Your task to perform on an android device: What's the price of the new iPhone on eBay? Image 0: 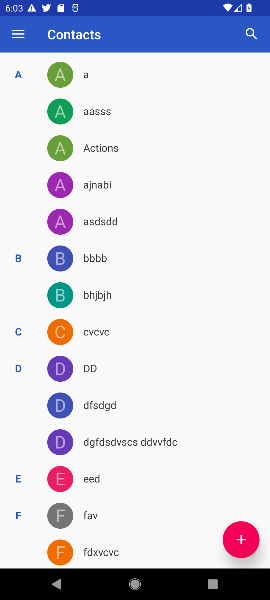
Step 0: press home button
Your task to perform on an android device: What's the price of the new iPhone on eBay? Image 1: 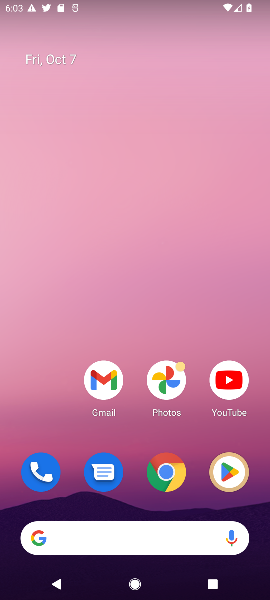
Step 1: click (166, 479)
Your task to perform on an android device: What's the price of the new iPhone on eBay? Image 2: 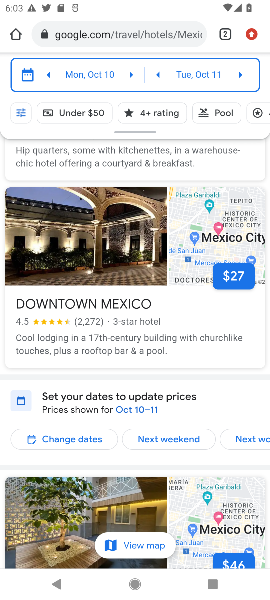
Step 2: click (103, 30)
Your task to perform on an android device: What's the price of the new iPhone on eBay? Image 3: 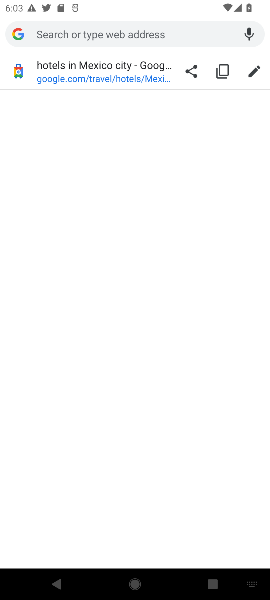
Step 3: type "rice of the new iPhone on eBay"
Your task to perform on an android device: What's the price of the new iPhone on eBay? Image 4: 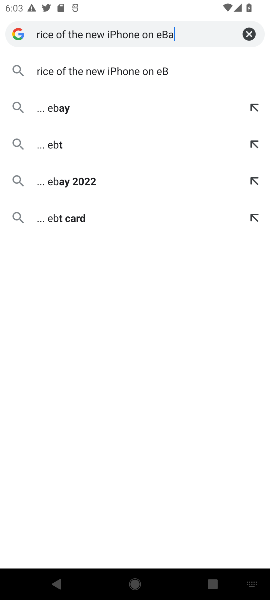
Step 4: type ""
Your task to perform on an android device: What's the price of the new iPhone on eBay? Image 5: 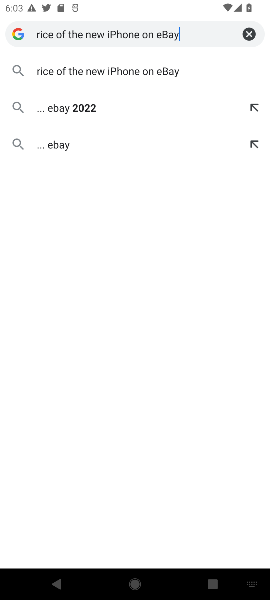
Step 5: click (157, 68)
Your task to perform on an android device: What's the price of the new iPhone on eBay? Image 6: 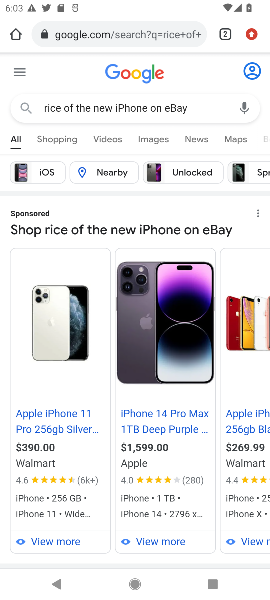
Step 6: drag from (151, 515) to (155, 320)
Your task to perform on an android device: What's the price of the new iPhone on eBay? Image 7: 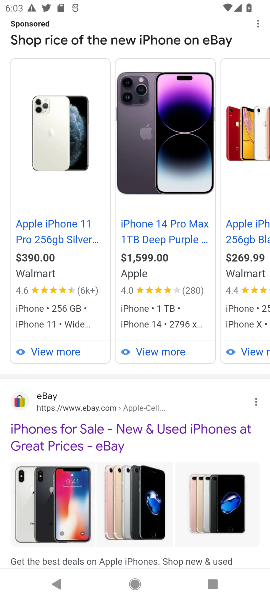
Step 7: drag from (156, 447) to (143, 209)
Your task to perform on an android device: What's the price of the new iPhone on eBay? Image 8: 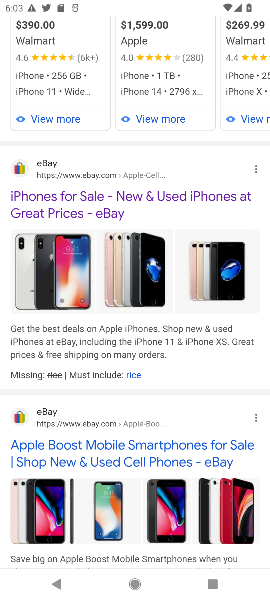
Step 8: drag from (187, 411) to (169, 287)
Your task to perform on an android device: What's the price of the new iPhone on eBay? Image 9: 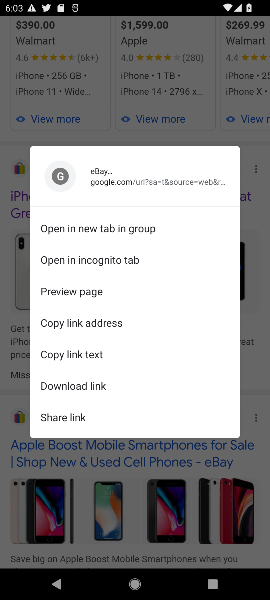
Step 9: click (260, 230)
Your task to perform on an android device: What's the price of the new iPhone on eBay? Image 10: 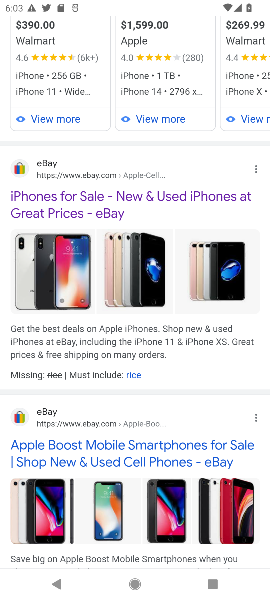
Step 10: click (107, 199)
Your task to perform on an android device: What's the price of the new iPhone on eBay? Image 11: 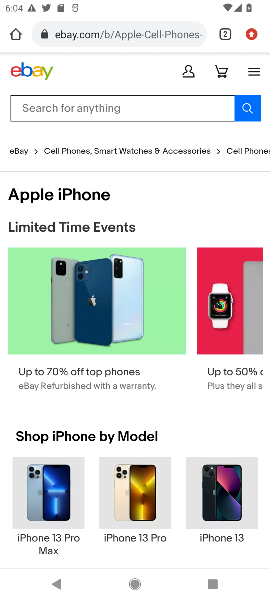
Step 11: drag from (213, 442) to (187, 280)
Your task to perform on an android device: What's the price of the new iPhone on eBay? Image 12: 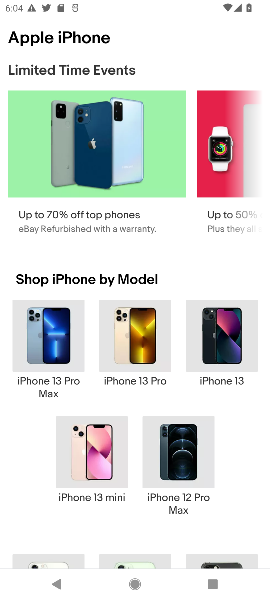
Step 12: click (39, 355)
Your task to perform on an android device: What's the price of the new iPhone on eBay? Image 13: 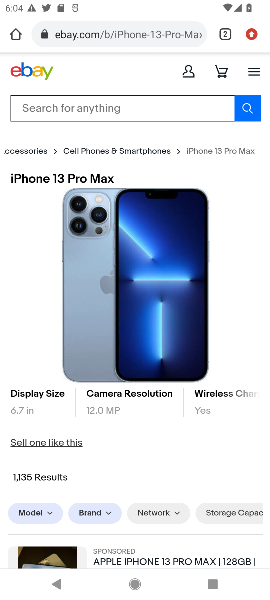
Step 13: drag from (202, 513) to (26, 512)
Your task to perform on an android device: What's the price of the new iPhone on eBay? Image 14: 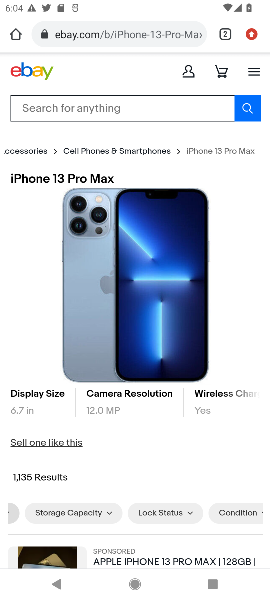
Step 14: click (243, 512)
Your task to perform on an android device: What's the price of the new iPhone on eBay? Image 15: 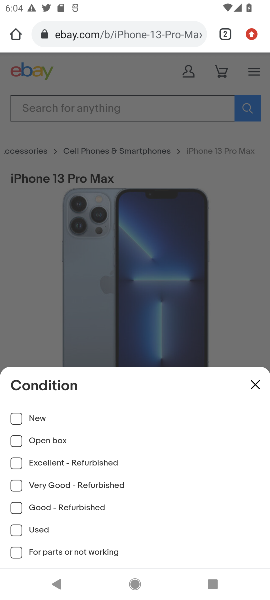
Step 15: click (18, 416)
Your task to perform on an android device: What's the price of the new iPhone on eBay? Image 16: 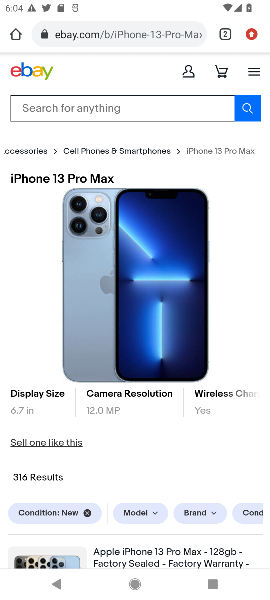
Step 16: task complete